Your task to perform on an android device: Open location settings Image 0: 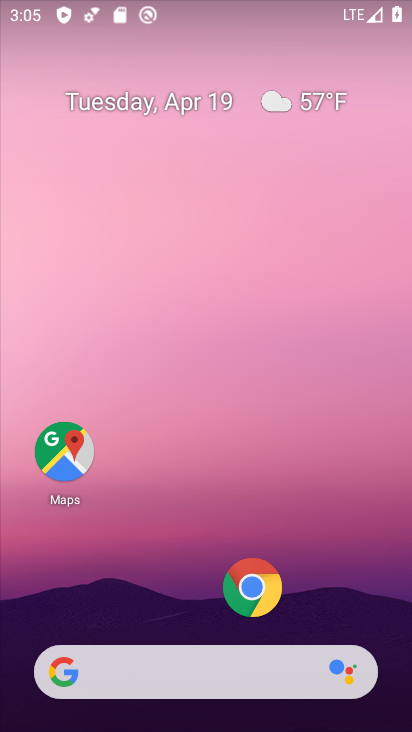
Step 0: drag from (160, 591) to (327, 532)
Your task to perform on an android device: Open location settings Image 1: 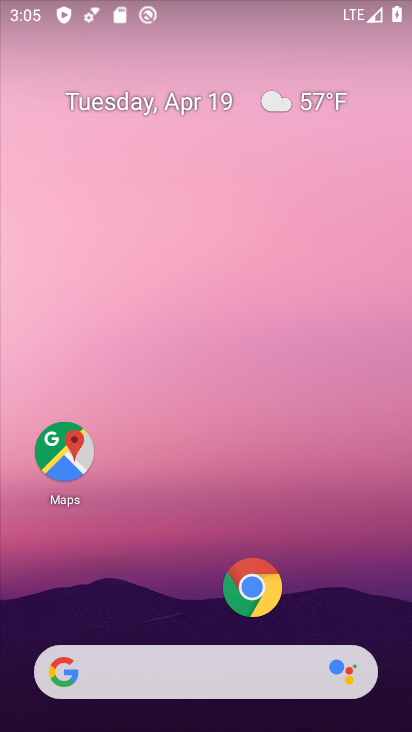
Step 1: drag from (192, 589) to (251, 73)
Your task to perform on an android device: Open location settings Image 2: 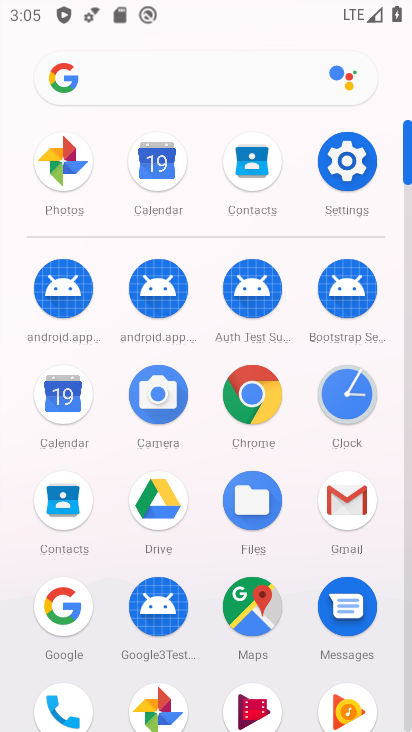
Step 2: click (355, 161)
Your task to perform on an android device: Open location settings Image 3: 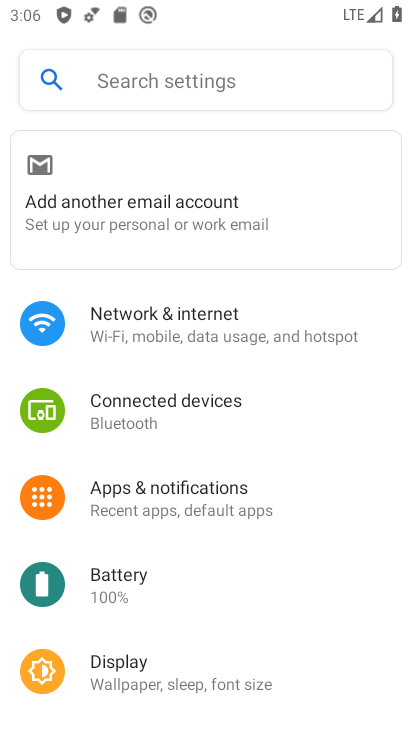
Step 3: drag from (159, 623) to (191, 290)
Your task to perform on an android device: Open location settings Image 4: 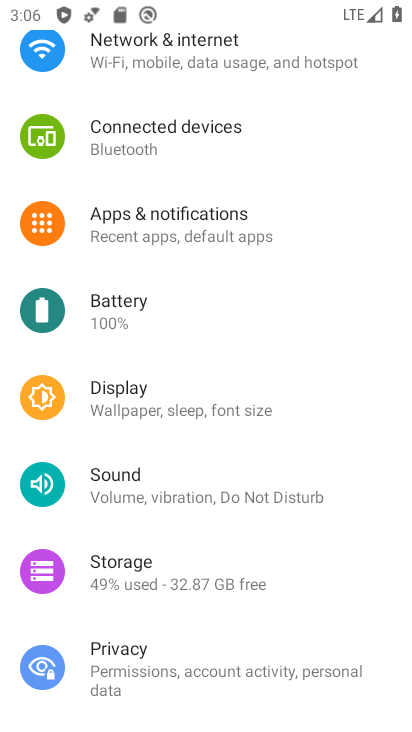
Step 4: drag from (142, 625) to (194, 247)
Your task to perform on an android device: Open location settings Image 5: 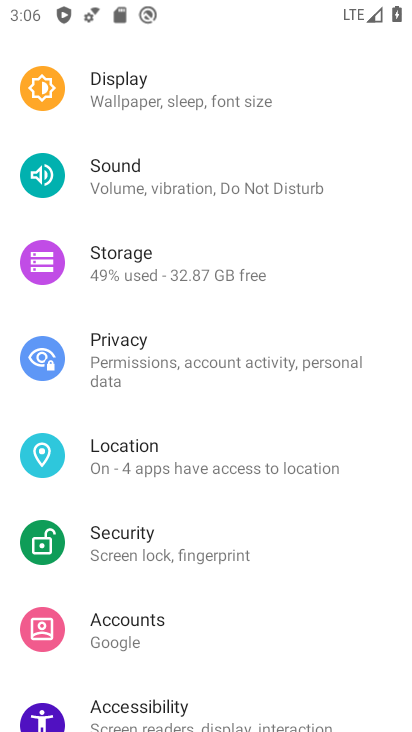
Step 5: click (137, 466)
Your task to perform on an android device: Open location settings Image 6: 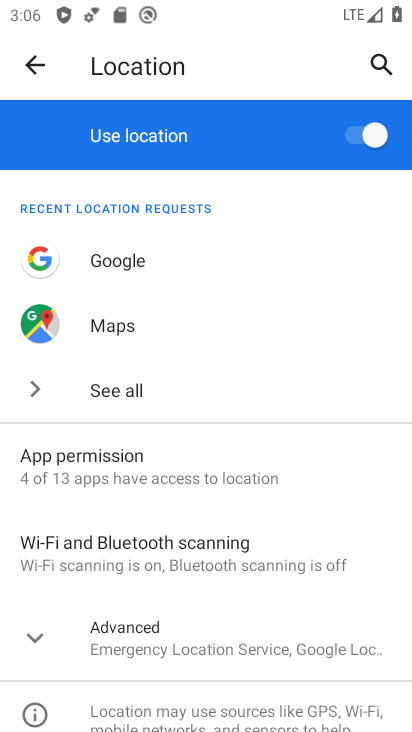
Step 6: task complete